Your task to perform on an android device: check google app version Image 0: 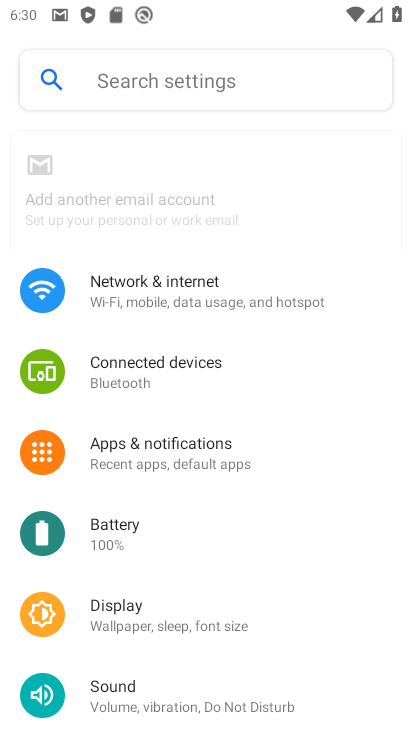
Step 0: press home button
Your task to perform on an android device: check google app version Image 1: 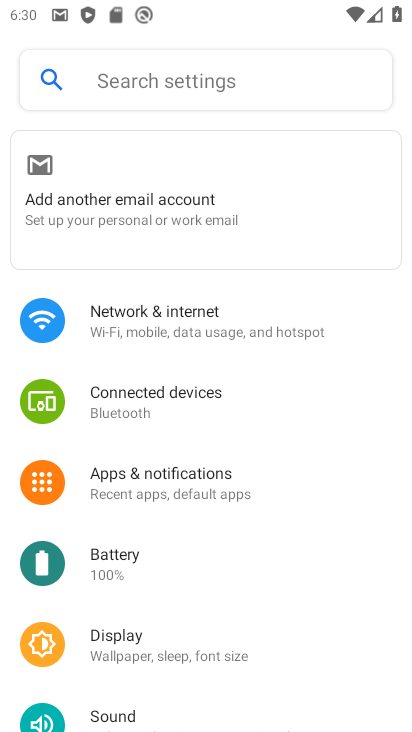
Step 1: drag from (392, 705) to (329, 18)
Your task to perform on an android device: check google app version Image 2: 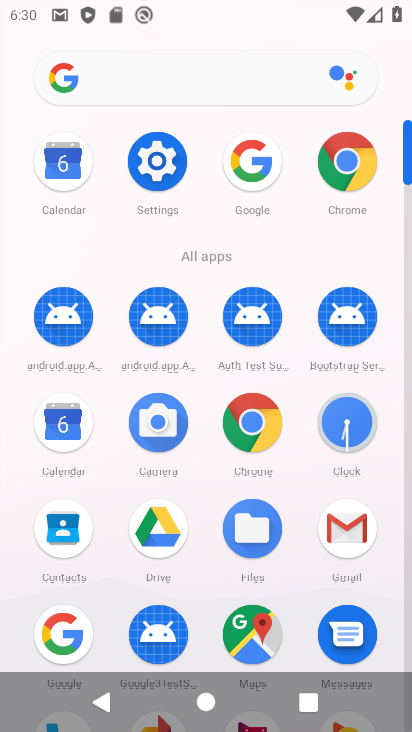
Step 2: click (244, 170)
Your task to perform on an android device: check google app version Image 3: 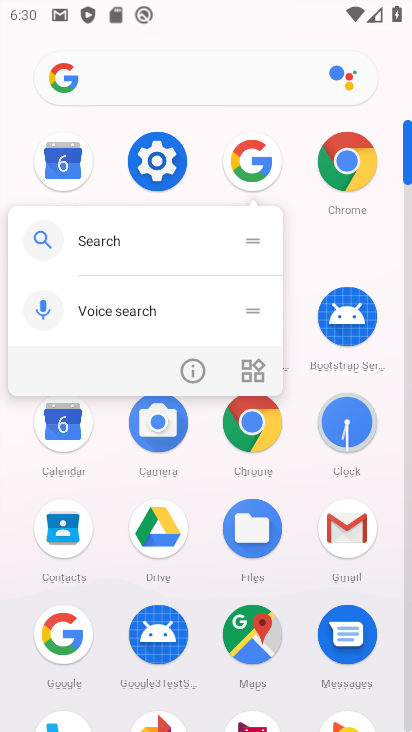
Step 3: click (246, 150)
Your task to perform on an android device: check google app version Image 4: 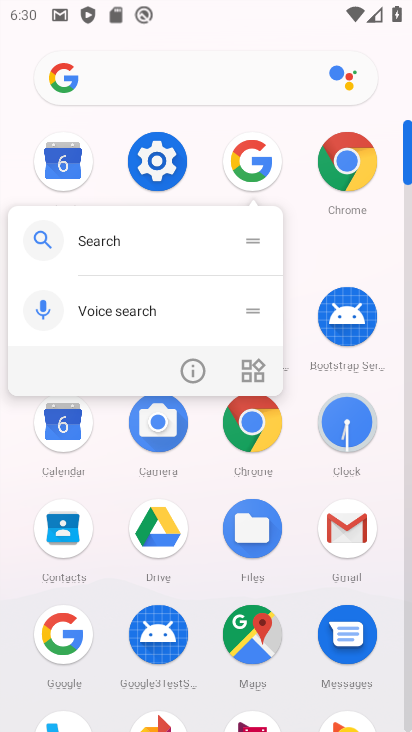
Step 4: click (49, 628)
Your task to perform on an android device: check google app version Image 5: 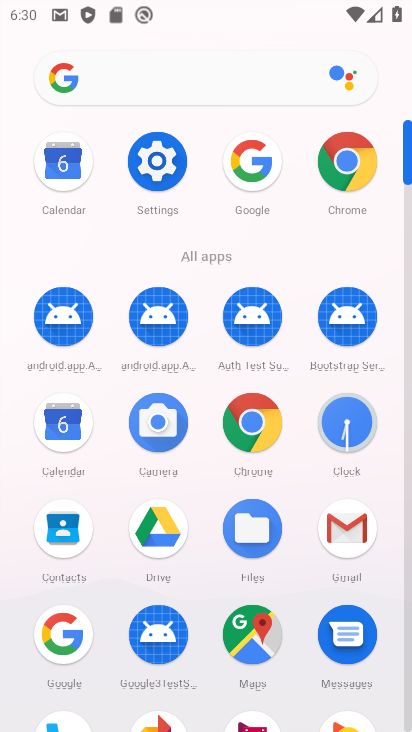
Step 5: click (73, 630)
Your task to perform on an android device: check google app version Image 6: 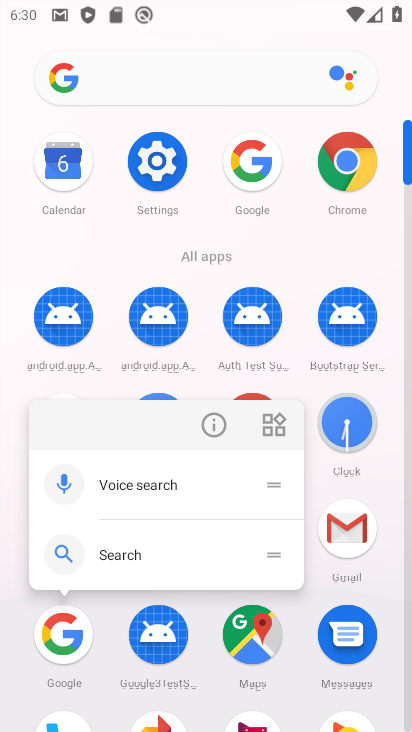
Step 6: click (220, 421)
Your task to perform on an android device: check google app version Image 7: 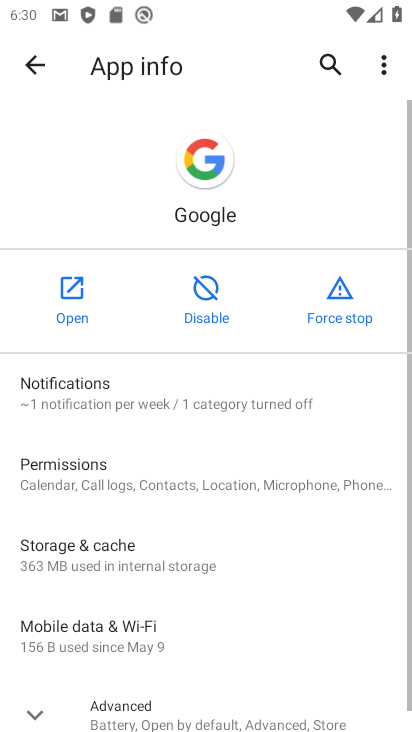
Step 7: drag from (105, 641) to (179, 122)
Your task to perform on an android device: check google app version Image 8: 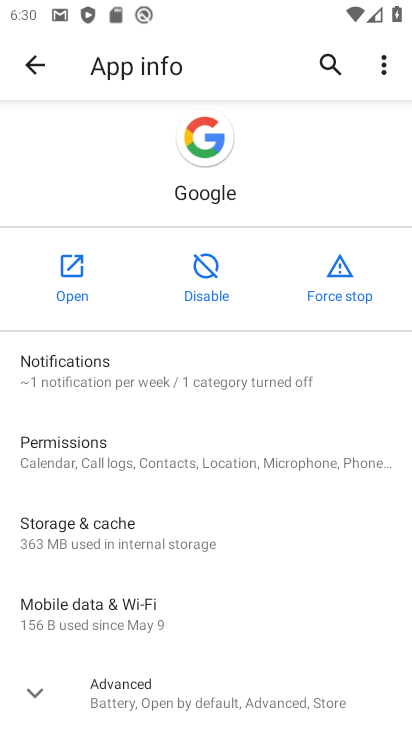
Step 8: click (45, 701)
Your task to perform on an android device: check google app version Image 9: 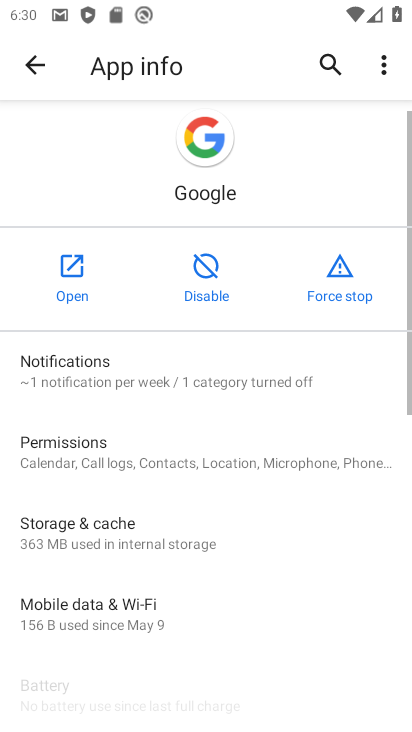
Step 9: task complete